Your task to perform on an android device: change alarm snooze length Image 0: 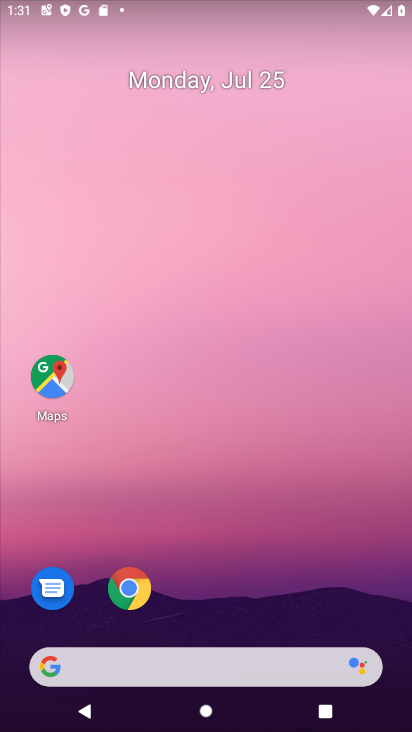
Step 0: drag from (177, 598) to (180, 3)
Your task to perform on an android device: change alarm snooze length Image 1: 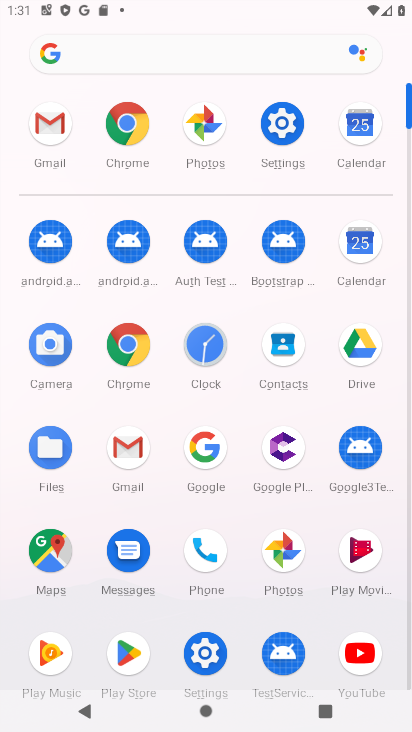
Step 1: click (198, 351)
Your task to perform on an android device: change alarm snooze length Image 2: 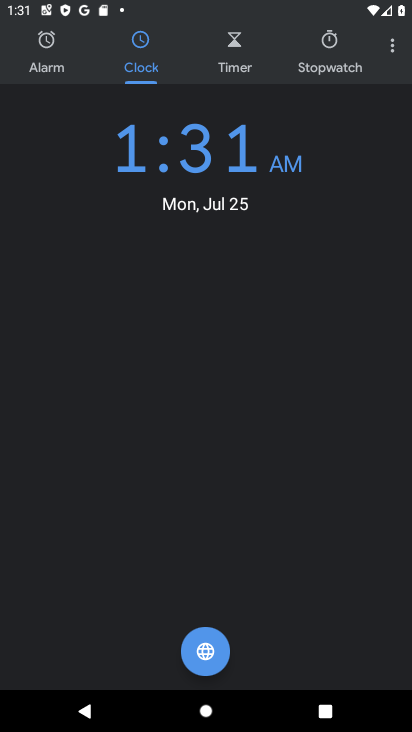
Step 2: click (389, 45)
Your task to perform on an android device: change alarm snooze length Image 3: 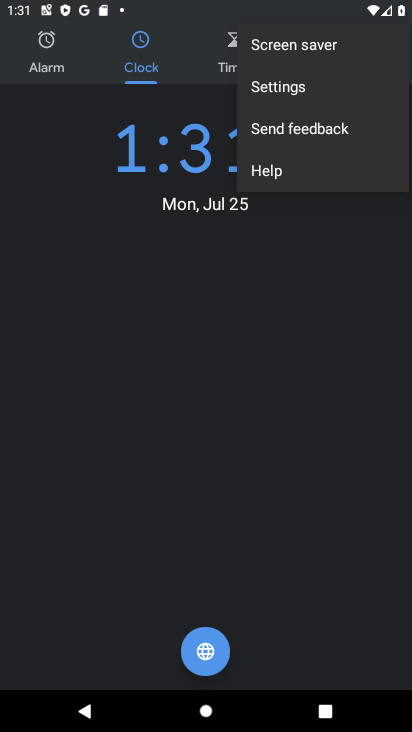
Step 3: click (310, 85)
Your task to perform on an android device: change alarm snooze length Image 4: 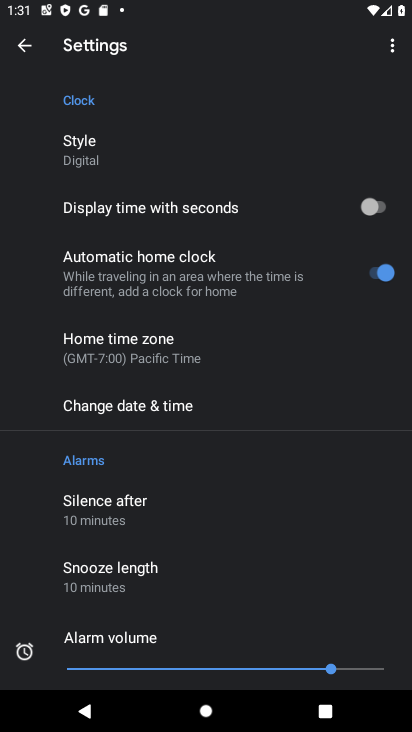
Step 4: click (114, 571)
Your task to perform on an android device: change alarm snooze length Image 5: 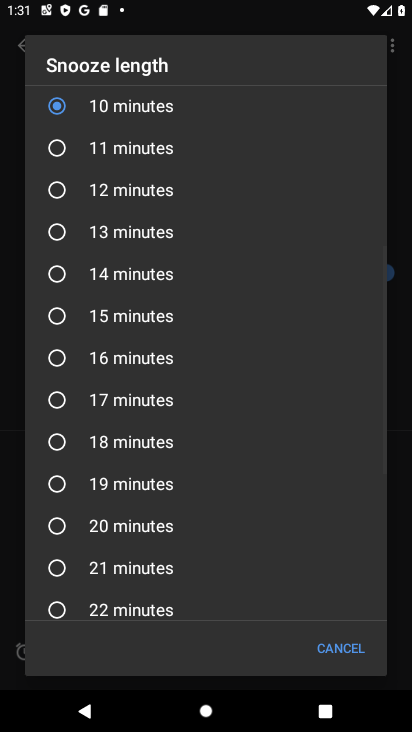
Step 5: click (113, 571)
Your task to perform on an android device: change alarm snooze length Image 6: 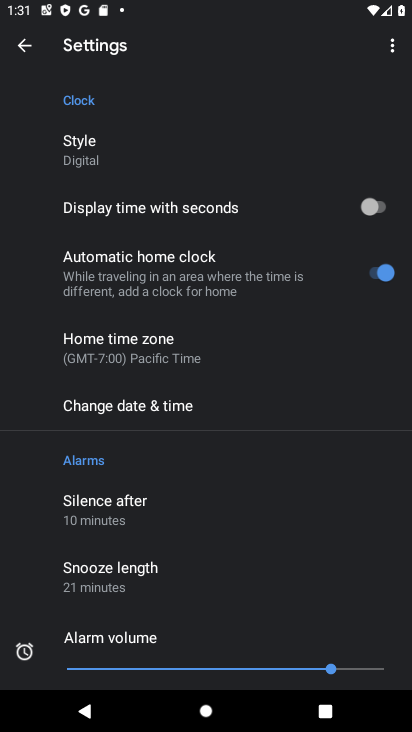
Step 6: task complete